Your task to perform on an android device: delete a single message in the gmail app Image 0: 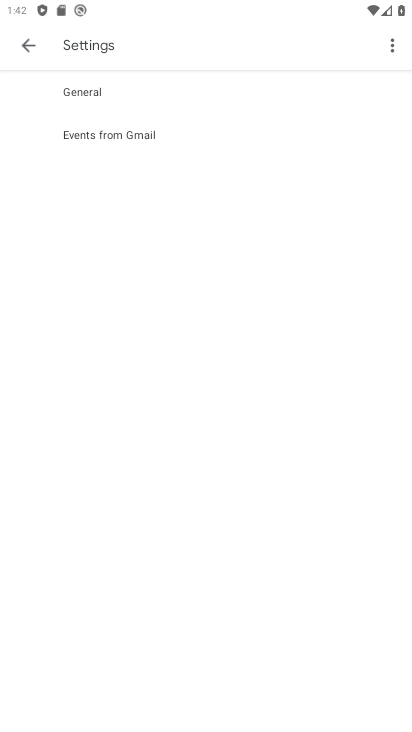
Step 0: press home button
Your task to perform on an android device: delete a single message in the gmail app Image 1: 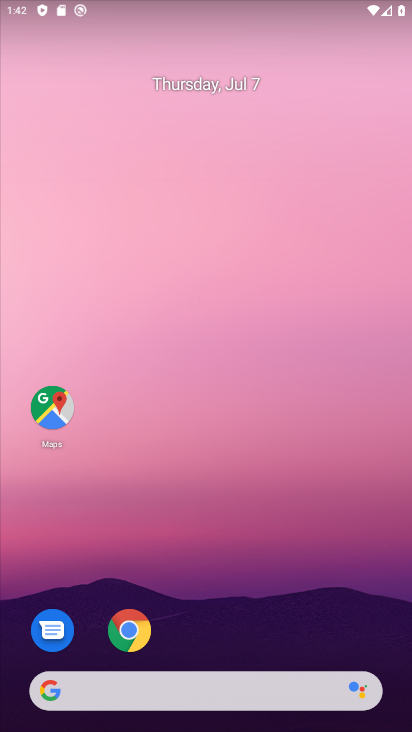
Step 1: drag from (200, 689) to (201, 75)
Your task to perform on an android device: delete a single message in the gmail app Image 2: 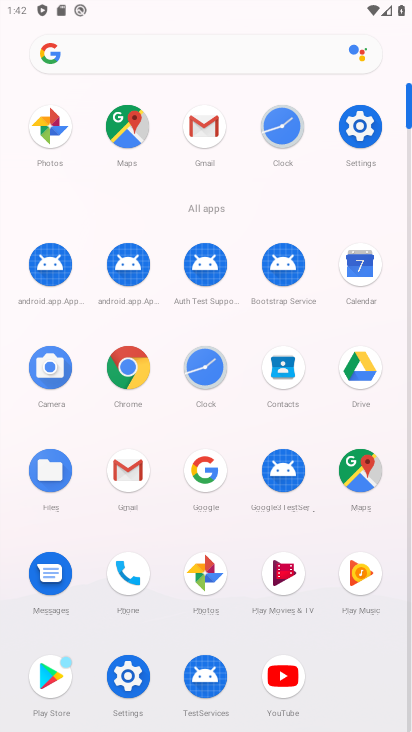
Step 2: click (143, 461)
Your task to perform on an android device: delete a single message in the gmail app Image 3: 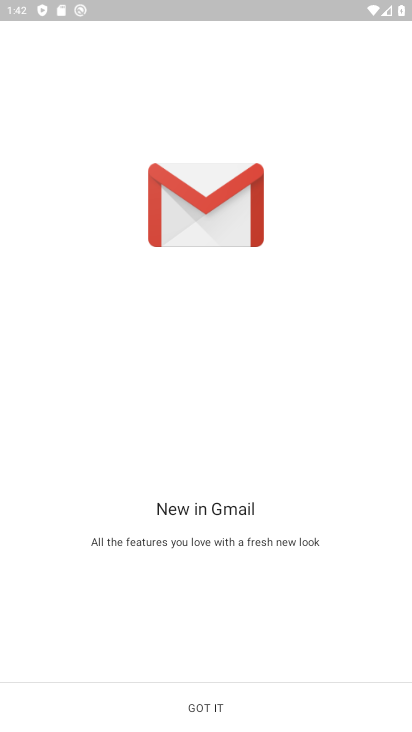
Step 3: click (230, 695)
Your task to perform on an android device: delete a single message in the gmail app Image 4: 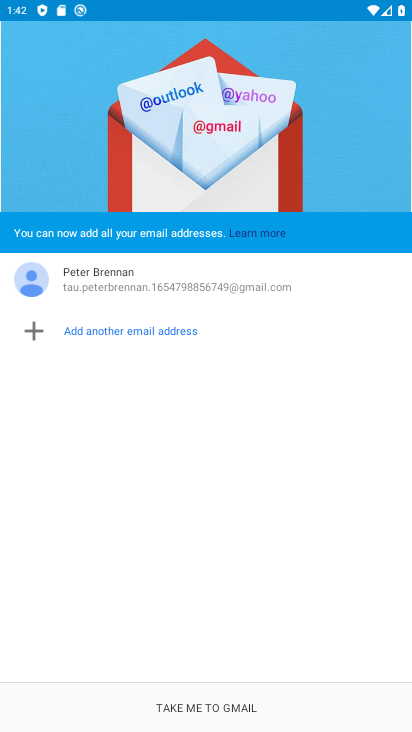
Step 4: click (229, 695)
Your task to perform on an android device: delete a single message in the gmail app Image 5: 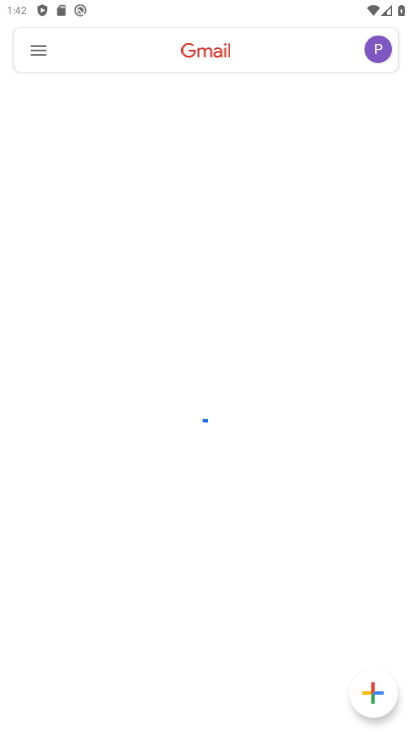
Step 5: task complete